Your task to perform on an android device: change keyboard looks Image 0: 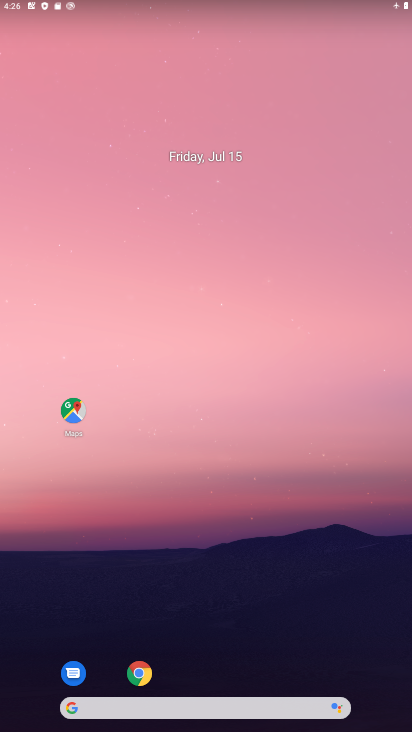
Step 0: drag from (266, 635) to (266, 315)
Your task to perform on an android device: change keyboard looks Image 1: 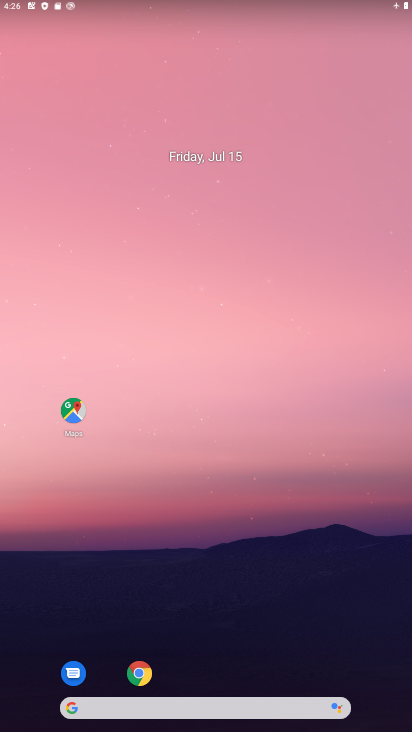
Step 1: drag from (225, 570) to (196, 2)
Your task to perform on an android device: change keyboard looks Image 2: 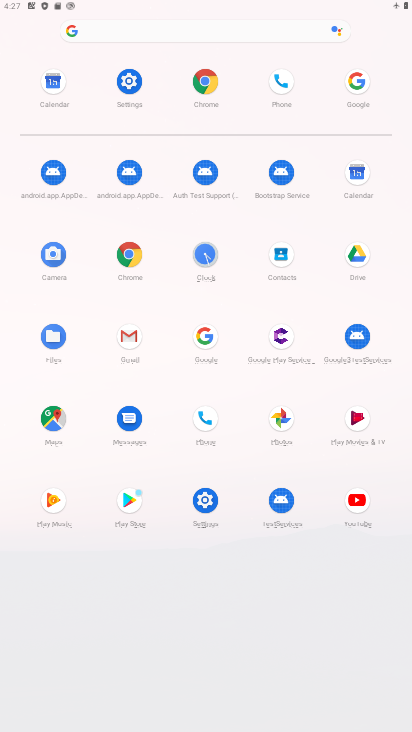
Step 2: click (205, 495)
Your task to perform on an android device: change keyboard looks Image 3: 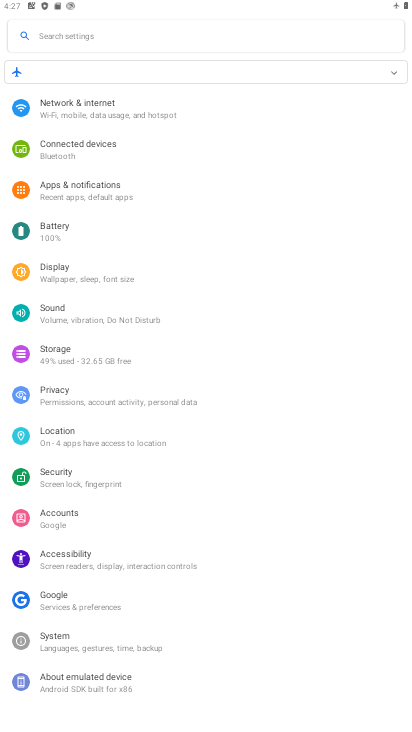
Step 3: click (82, 650)
Your task to perform on an android device: change keyboard looks Image 4: 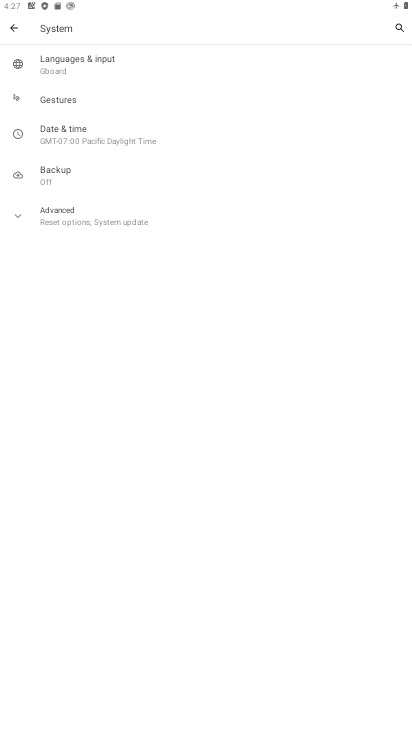
Step 4: click (55, 50)
Your task to perform on an android device: change keyboard looks Image 5: 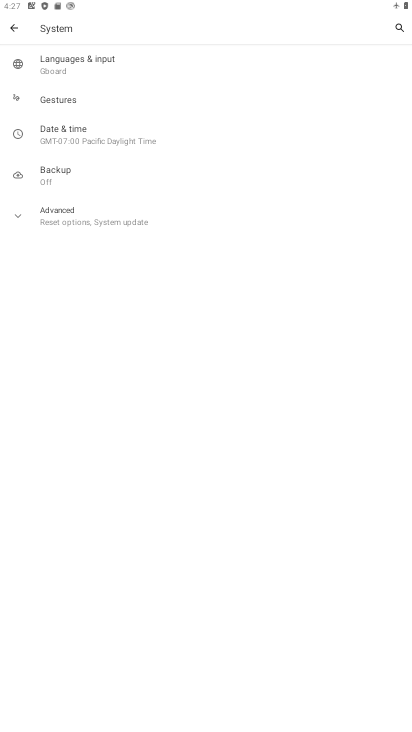
Step 5: click (55, 50)
Your task to perform on an android device: change keyboard looks Image 6: 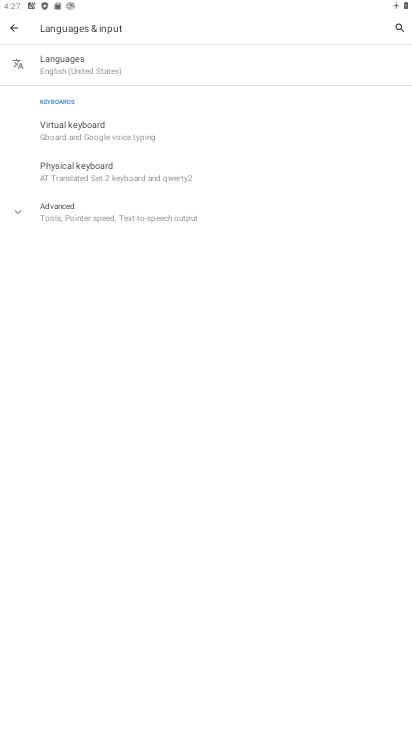
Step 6: click (66, 124)
Your task to perform on an android device: change keyboard looks Image 7: 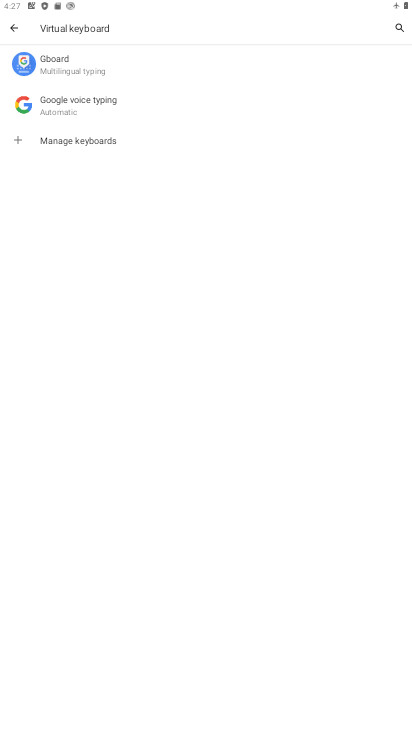
Step 7: click (69, 63)
Your task to perform on an android device: change keyboard looks Image 8: 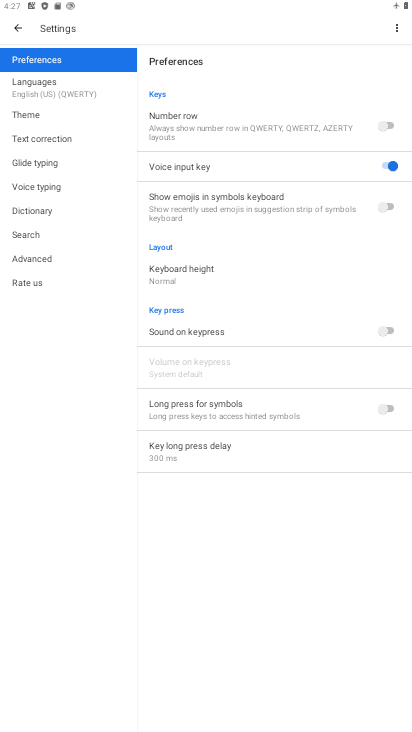
Step 8: click (26, 120)
Your task to perform on an android device: change keyboard looks Image 9: 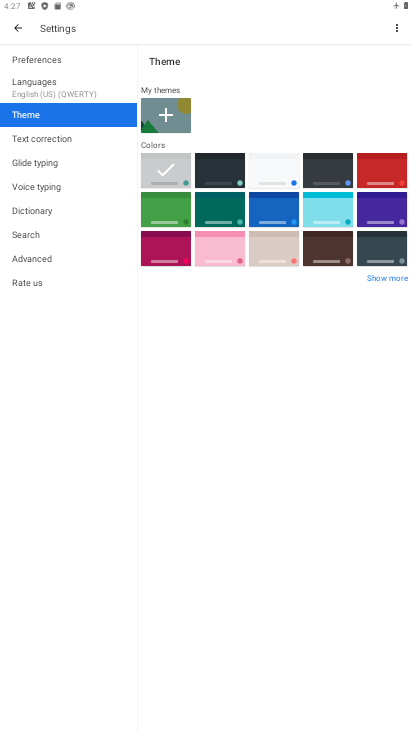
Step 9: click (210, 217)
Your task to perform on an android device: change keyboard looks Image 10: 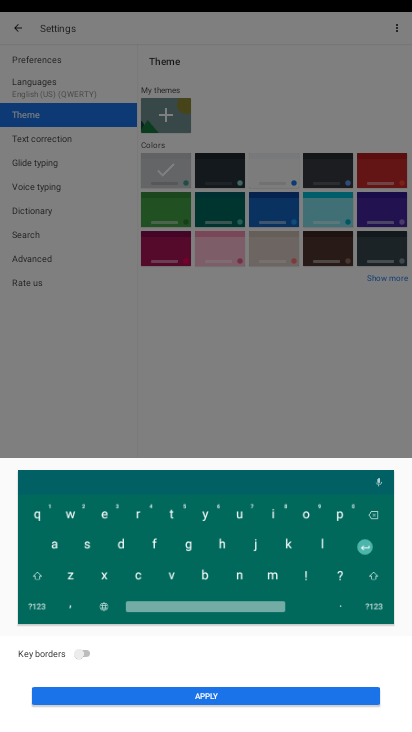
Step 10: click (279, 700)
Your task to perform on an android device: change keyboard looks Image 11: 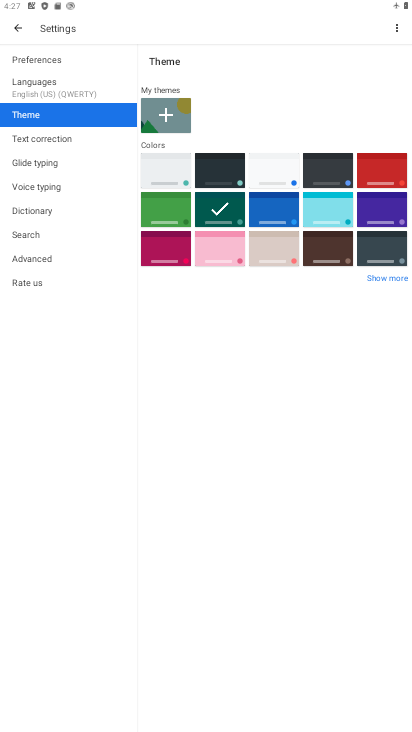
Step 11: task complete